Your task to perform on an android device: open a bookmark in the chrome app Image 0: 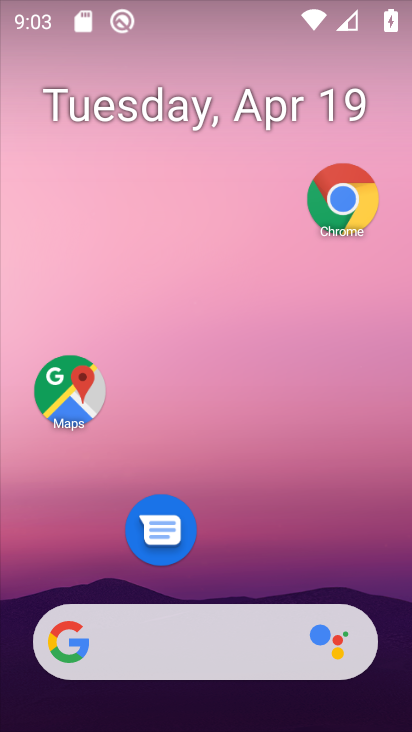
Step 0: drag from (206, 538) to (270, 24)
Your task to perform on an android device: open a bookmark in the chrome app Image 1: 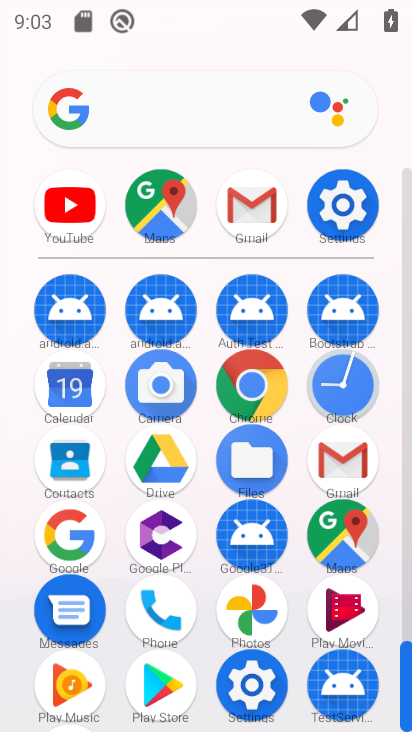
Step 1: click (246, 379)
Your task to perform on an android device: open a bookmark in the chrome app Image 2: 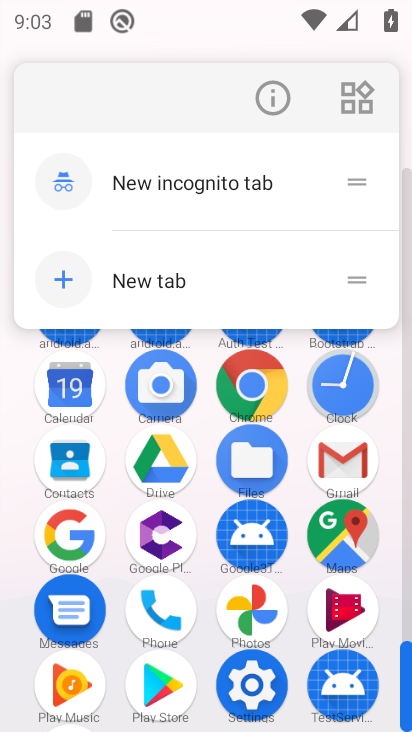
Step 2: click (276, 98)
Your task to perform on an android device: open a bookmark in the chrome app Image 3: 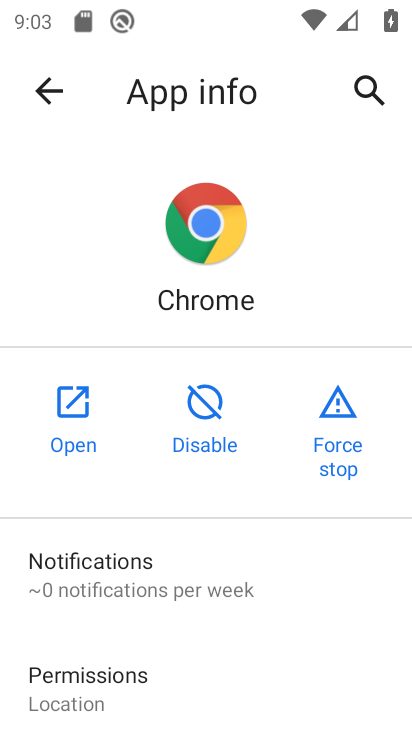
Step 3: click (44, 403)
Your task to perform on an android device: open a bookmark in the chrome app Image 4: 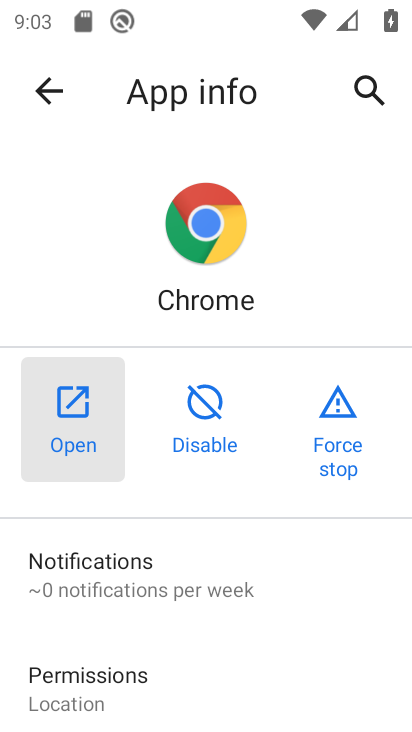
Step 4: click (59, 407)
Your task to perform on an android device: open a bookmark in the chrome app Image 5: 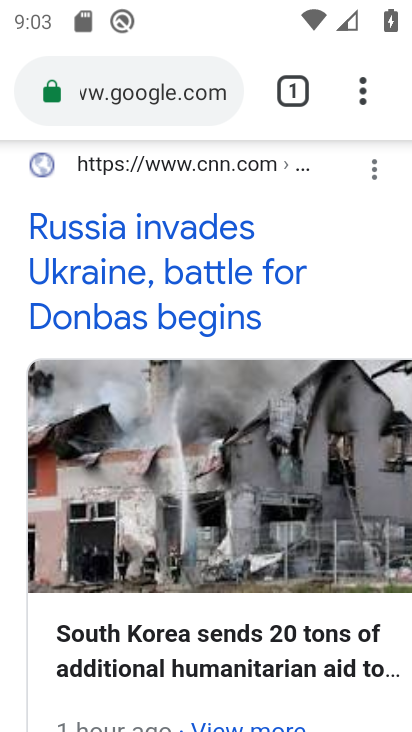
Step 5: task complete